Your task to perform on an android device: Toggle the flashlight Image 0: 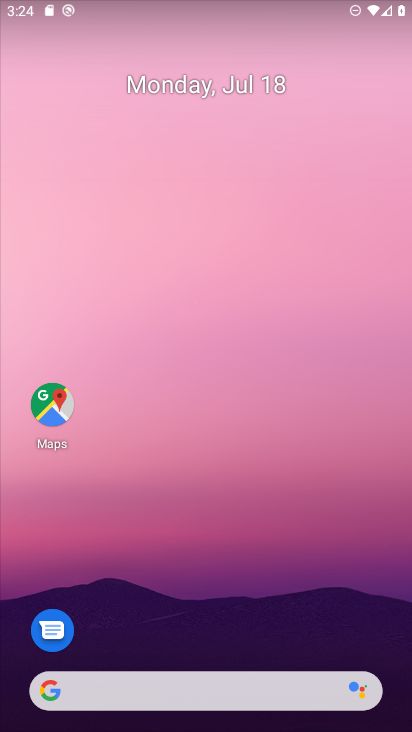
Step 0: drag from (239, 0) to (233, 563)
Your task to perform on an android device: Toggle the flashlight Image 1: 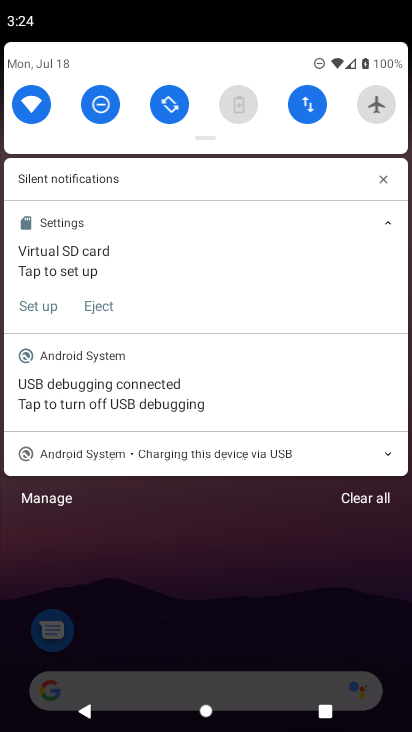
Step 1: task complete